Your task to perform on an android device: refresh tabs in the chrome app Image 0: 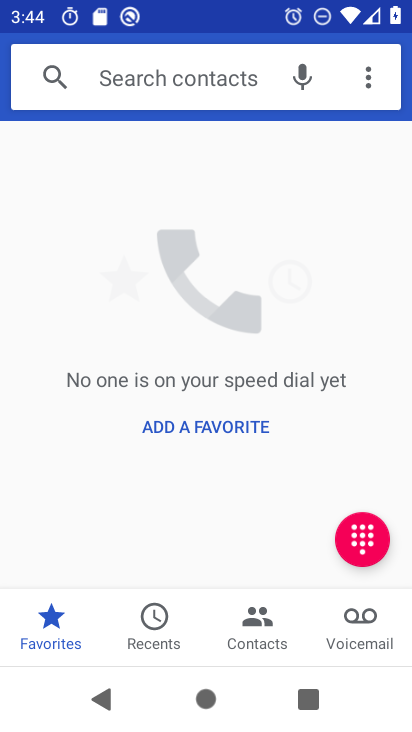
Step 0: press home button
Your task to perform on an android device: refresh tabs in the chrome app Image 1: 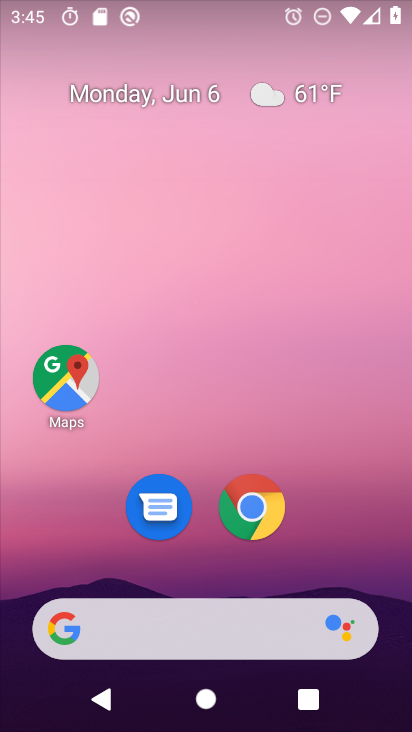
Step 1: click (260, 511)
Your task to perform on an android device: refresh tabs in the chrome app Image 2: 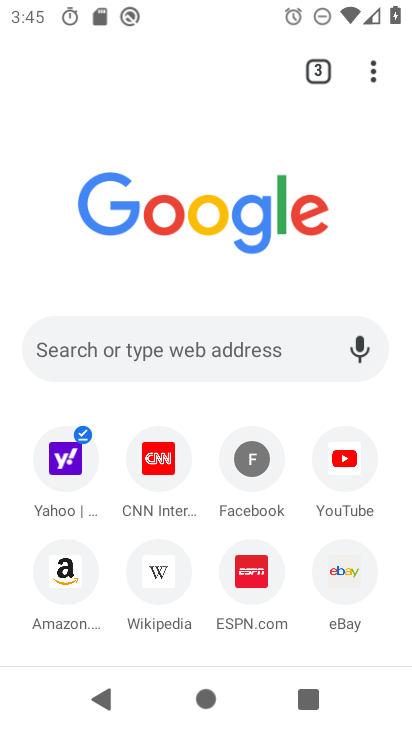
Step 2: click (369, 81)
Your task to perform on an android device: refresh tabs in the chrome app Image 3: 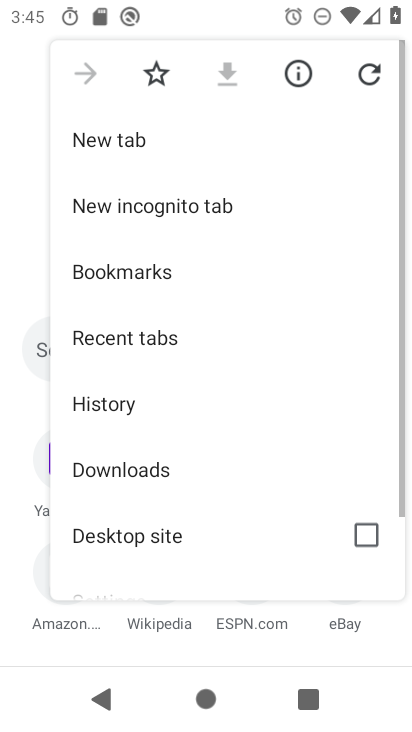
Step 3: click (368, 68)
Your task to perform on an android device: refresh tabs in the chrome app Image 4: 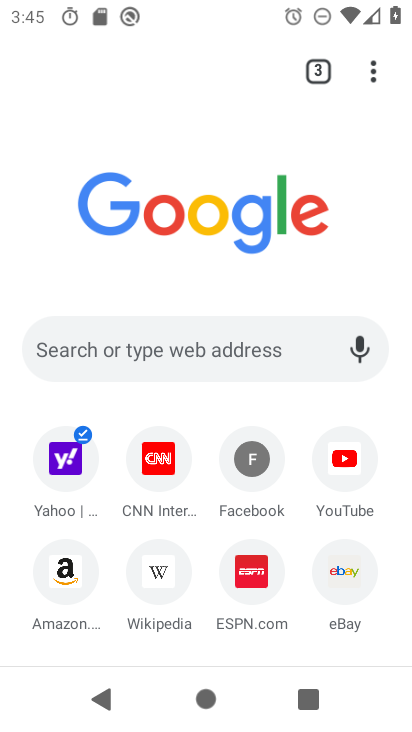
Step 4: click (370, 85)
Your task to perform on an android device: refresh tabs in the chrome app Image 5: 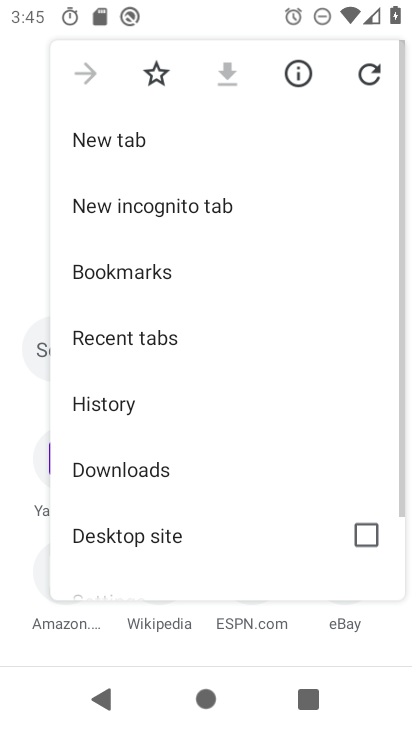
Step 5: click (369, 81)
Your task to perform on an android device: refresh tabs in the chrome app Image 6: 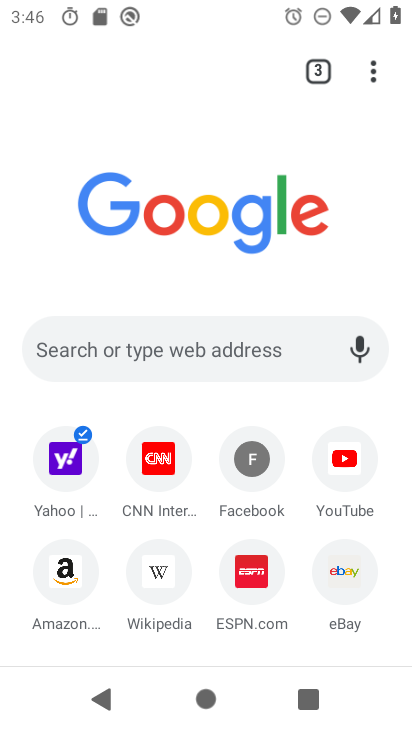
Step 6: click (366, 64)
Your task to perform on an android device: refresh tabs in the chrome app Image 7: 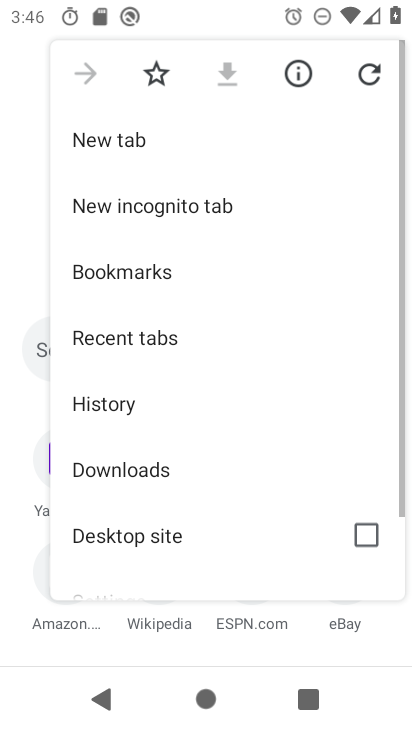
Step 7: click (367, 65)
Your task to perform on an android device: refresh tabs in the chrome app Image 8: 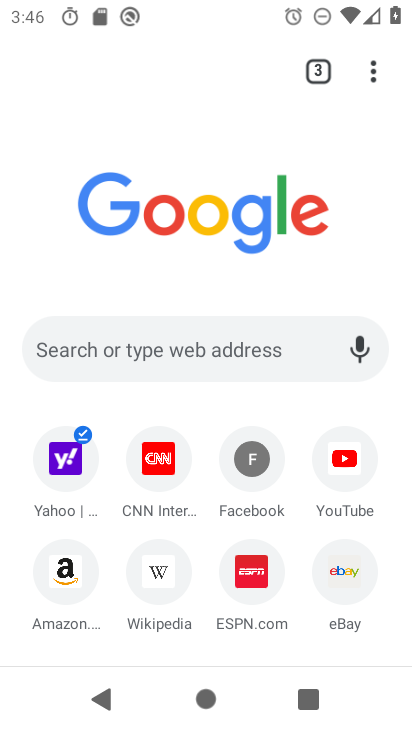
Step 8: task complete